Your task to perform on an android device: turn on location history Image 0: 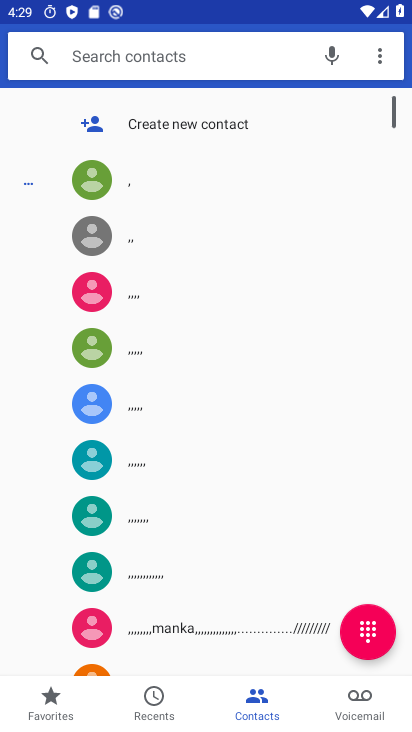
Step 0: press home button
Your task to perform on an android device: turn on location history Image 1: 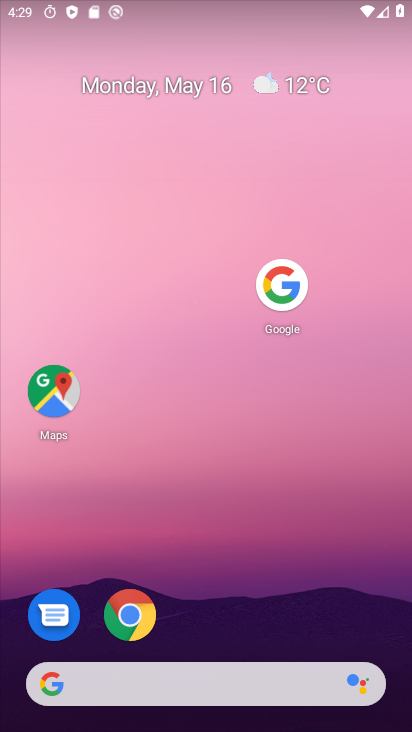
Step 1: drag from (193, 644) to (157, 0)
Your task to perform on an android device: turn on location history Image 2: 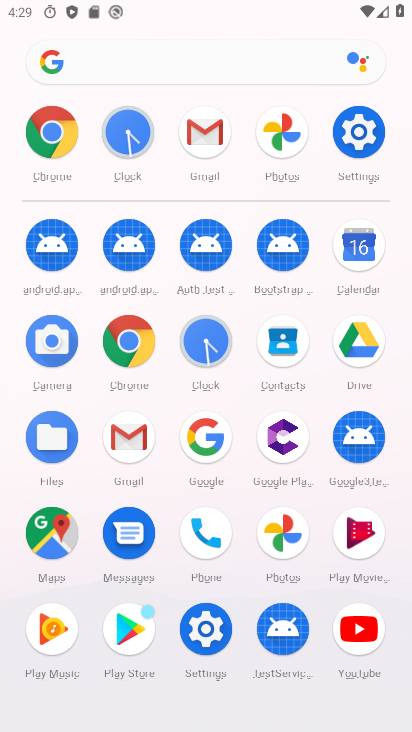
Step 2: click (366, 135)
Your task to perform on an android device: turn on location history Image 3: 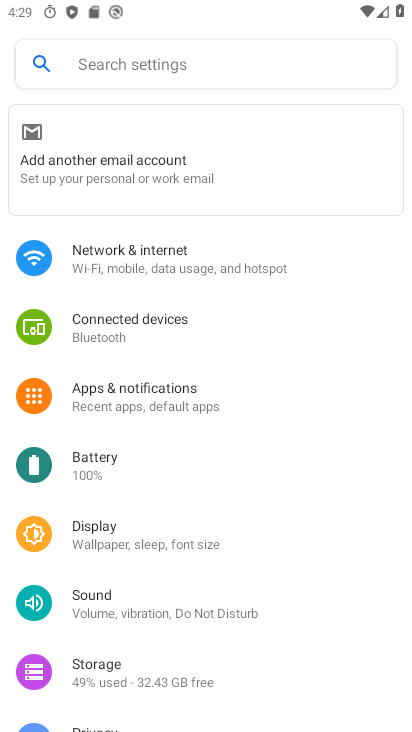
Step 3: drag from (284, 496) to (210, 152)
Your task to perform on an android device: turn on location history Image 4: 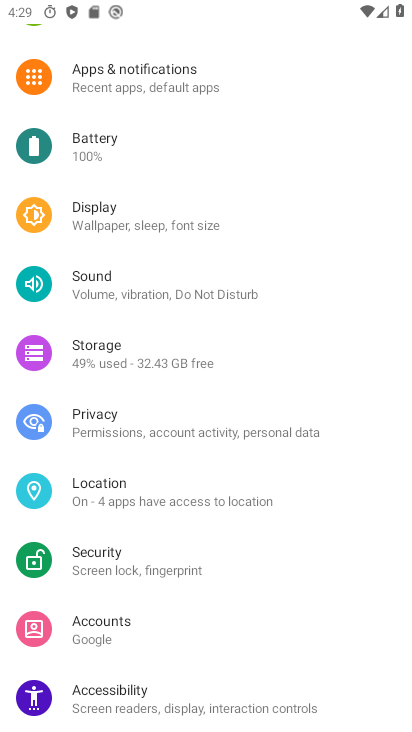
Step 4: click (107, 468)
Your task to perform on an android device: turn on location history Image 5: 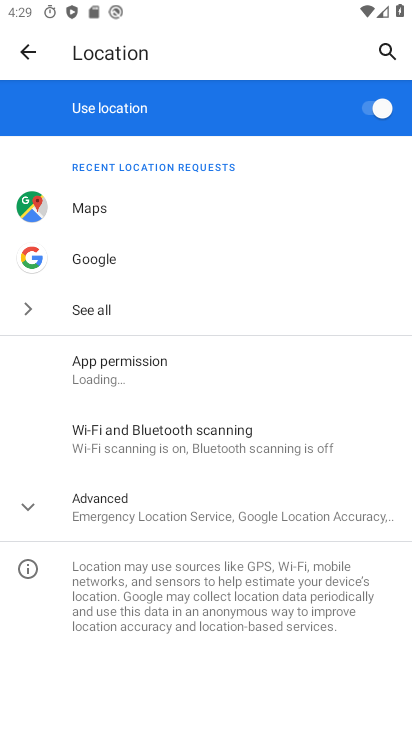
Step 5: click (121, 493)
Your task to perform on an android device: turn on location history Image 6: 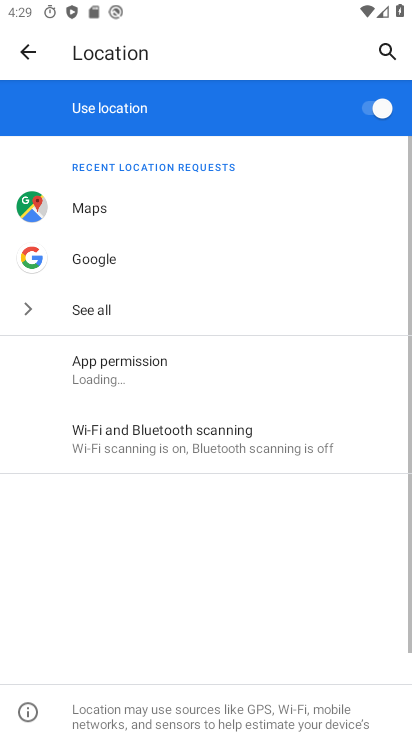
Step 6: drag from (122, 490) to (122, 301)
Your task to perform on an android device: turn on location history Image 7: 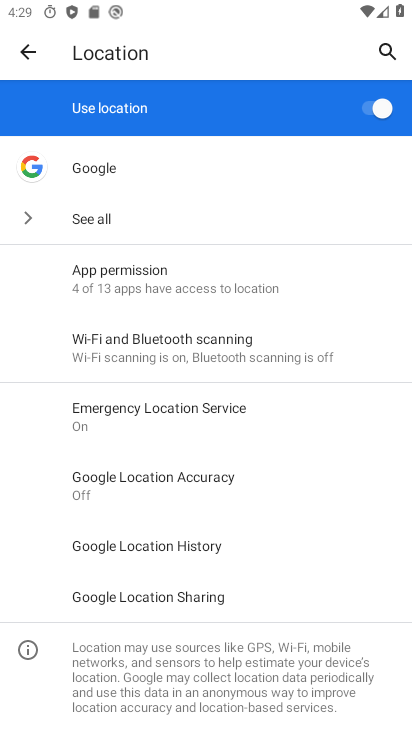
Step 7: click (165, 544)
Your task to perform on an android device: turn on location history Image 8: 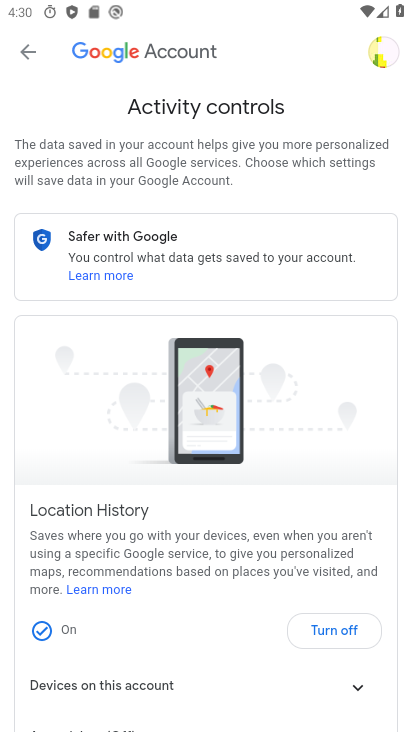
Step 8: task complete